Your task to perform on an android device: choose inbox layout in the gmail app Image 0: 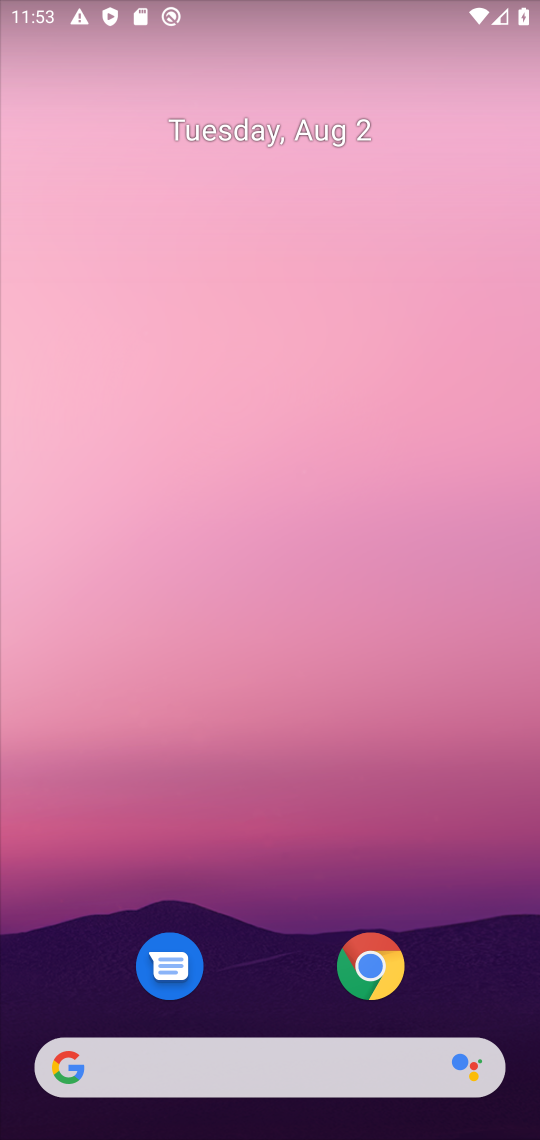
Step 0: drag from (263, 905) to (256, 76)
Your task to perform on an android device: choose inbox layout in the gmail app Image 1: 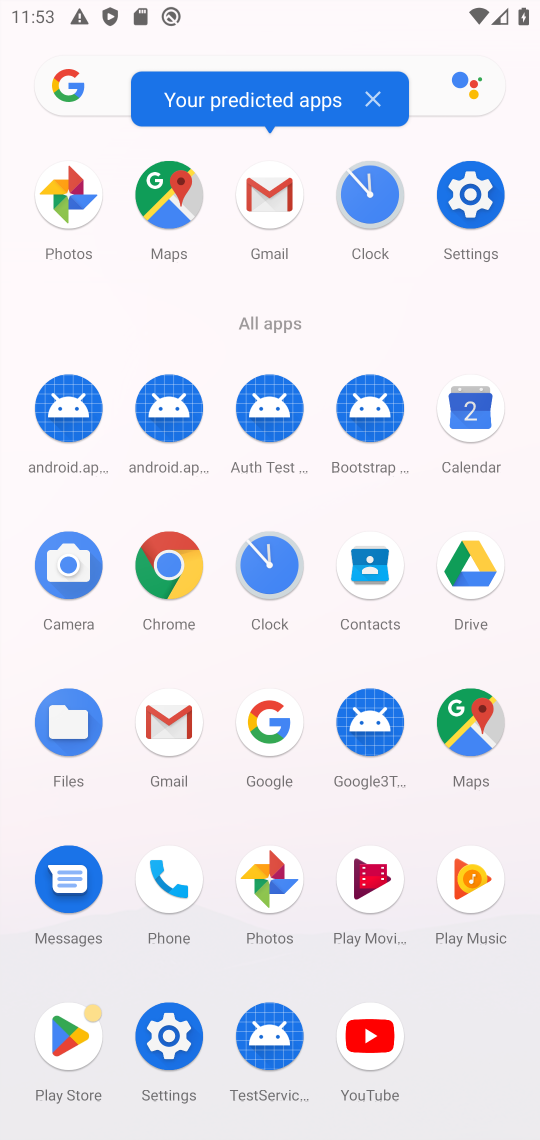
Step 1: click (276, 225)
Your task to perform on an android device: choose inbox layout in the gmail app Image 2: 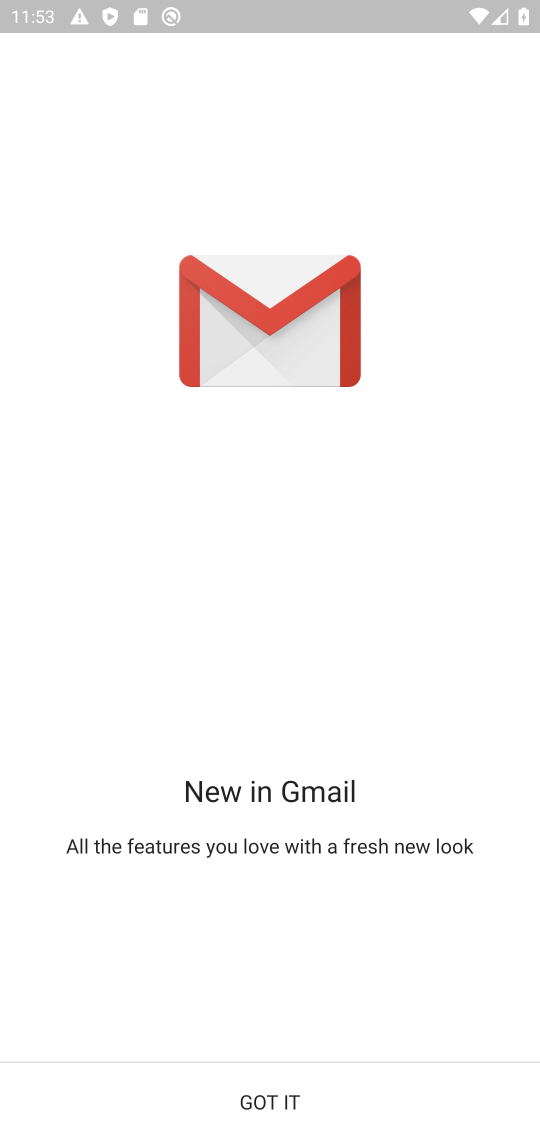
Step 2: click (231, 1120)
Your task to perform on an android device: choose inbox layout in the gmail app Image 3: 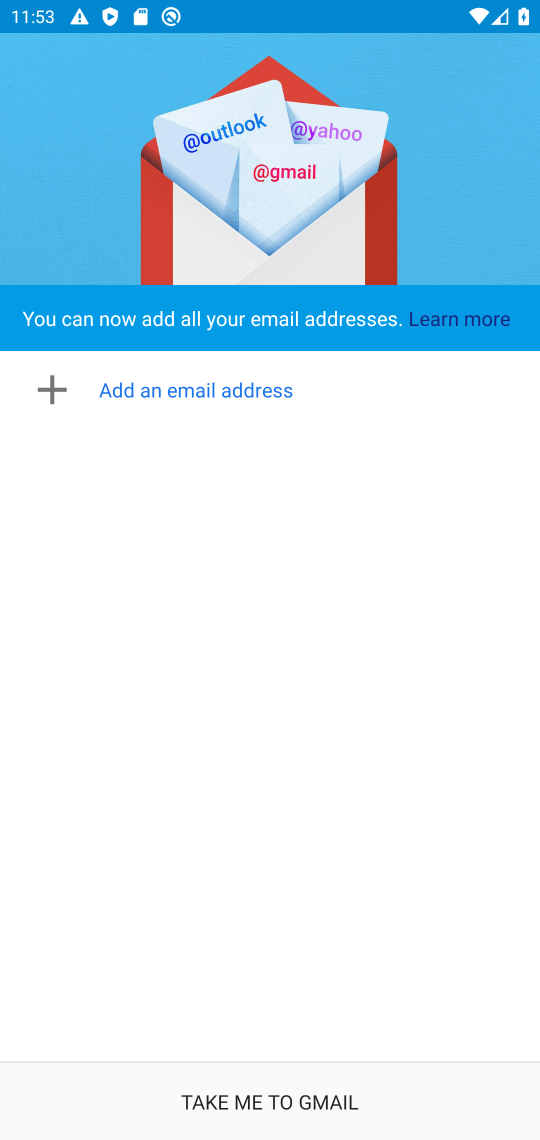
Step 3: click (231, 1120)
Your task to perform on an android device: choose inbox layout in the gmail app Image 4: 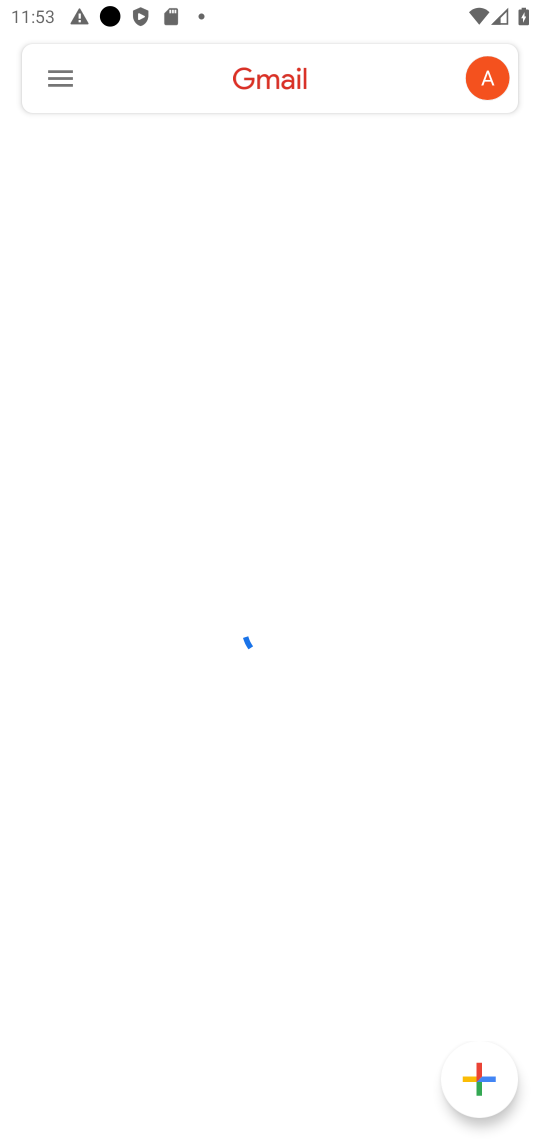
Step 4: click (49, 69)
Your task to perform on an android device: choose inbox layout in the gmail app Image 5: 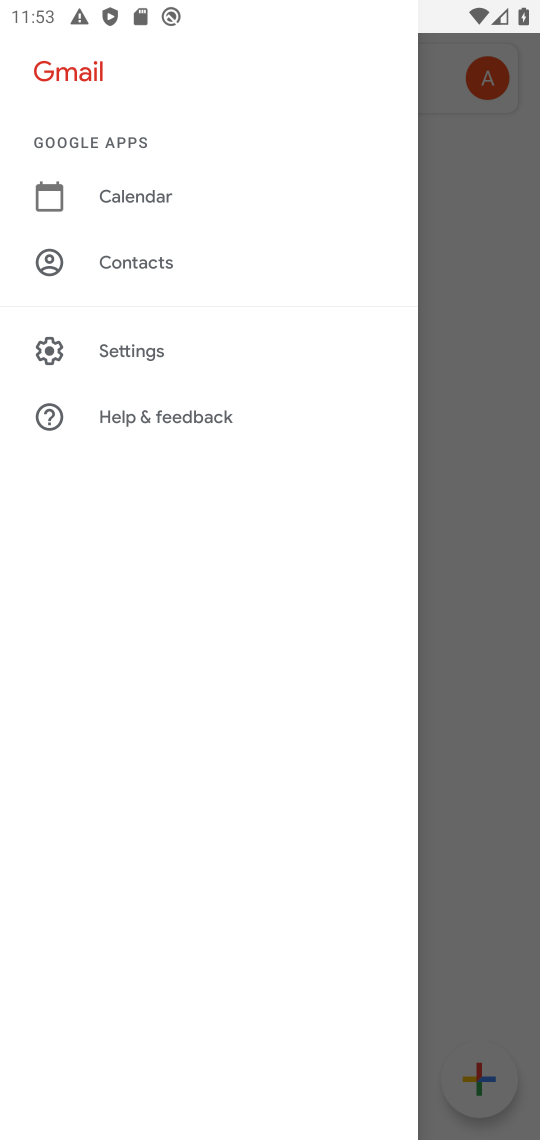
Step 5: click (125, 323)
Your task to perform on an android device: choose inbox layout in the gmail app Image 6: 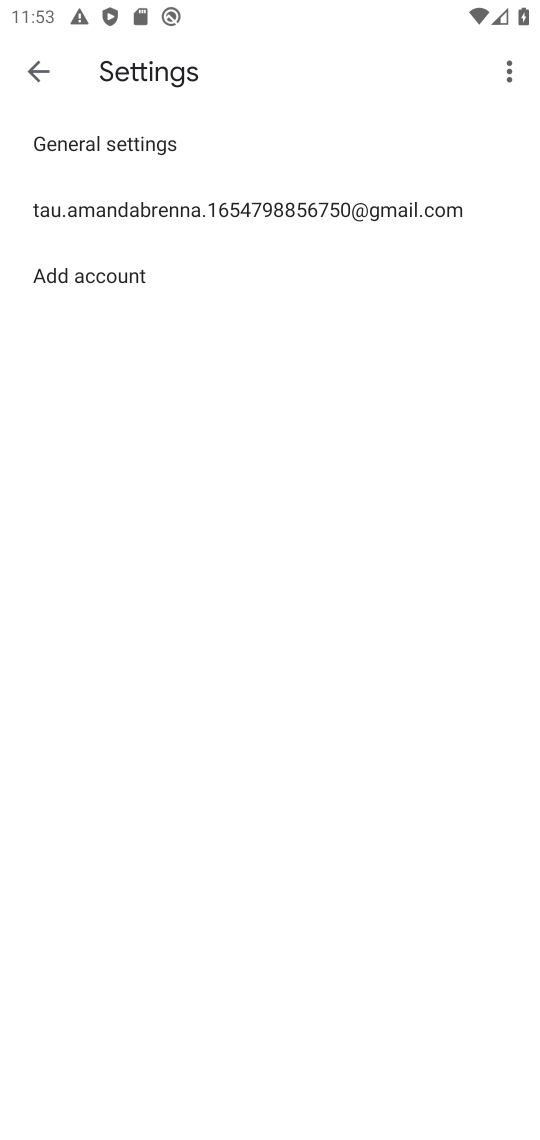
Step 6: click (191, 215)
Your task to perform on an android device: choose inbox layout in the gmail app Image 7: 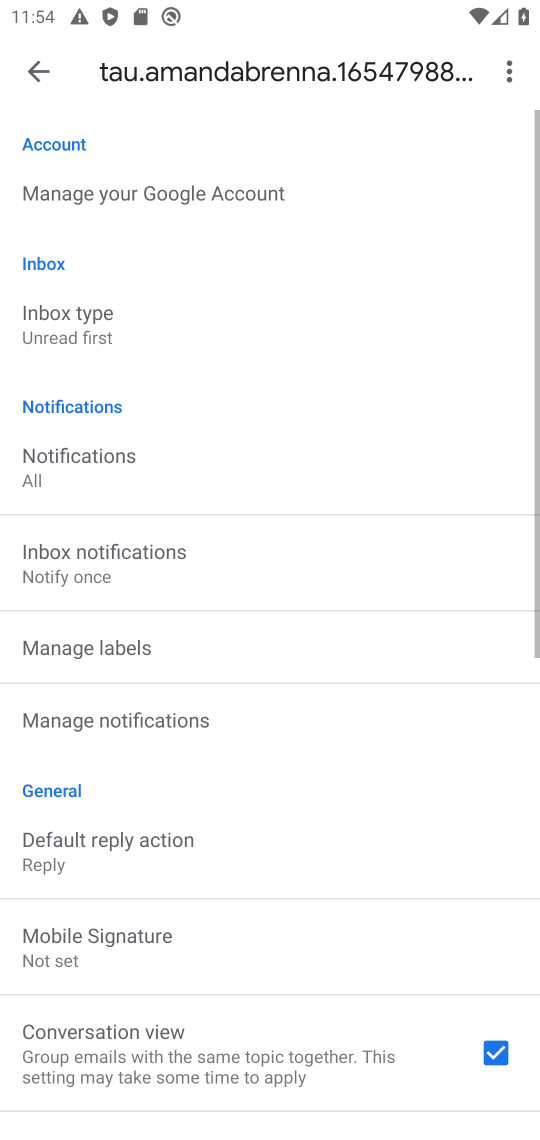
Step 7: click (150, 322)
Your task to perform on an android device: choose inbox layout in the gmail app Image 8: 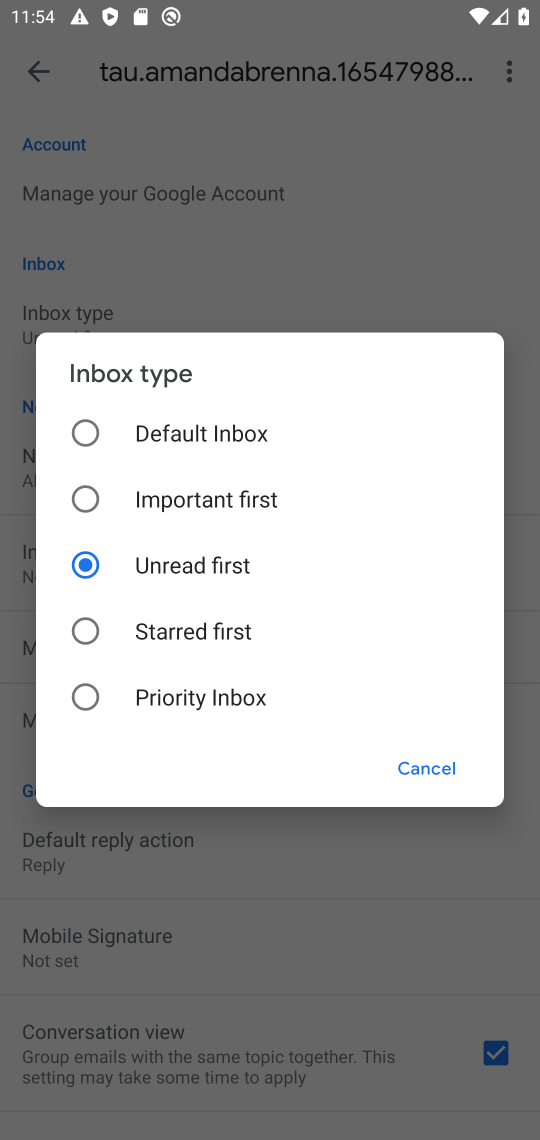
Step 8: click (153, 438)
Your task to perform on an android device: choose inbox layout in the gmail app Image 9: 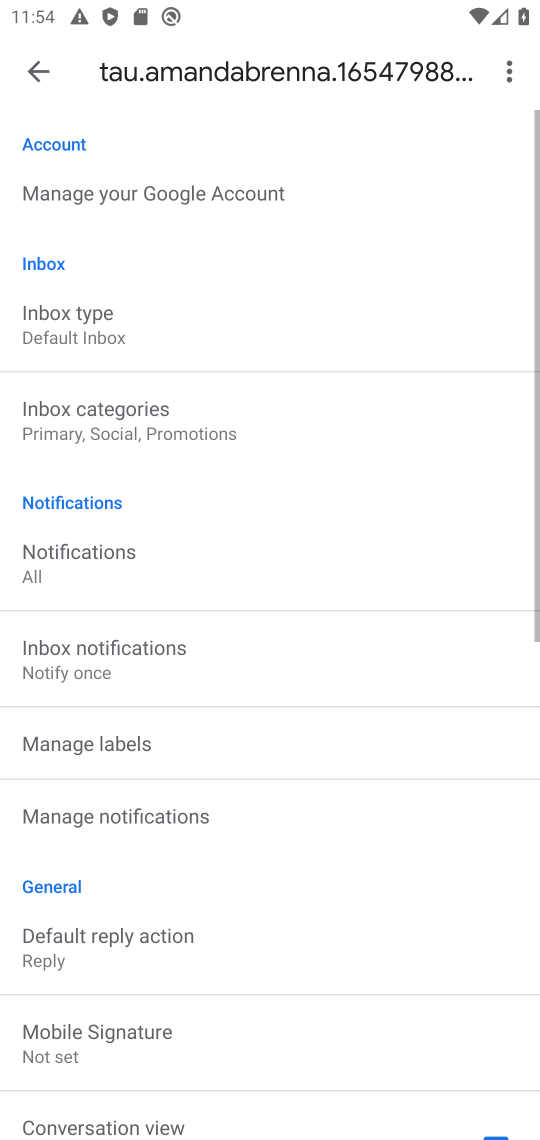
Step 9: task complete